Your task to perform on an android device: What's the weather today? Image 0: 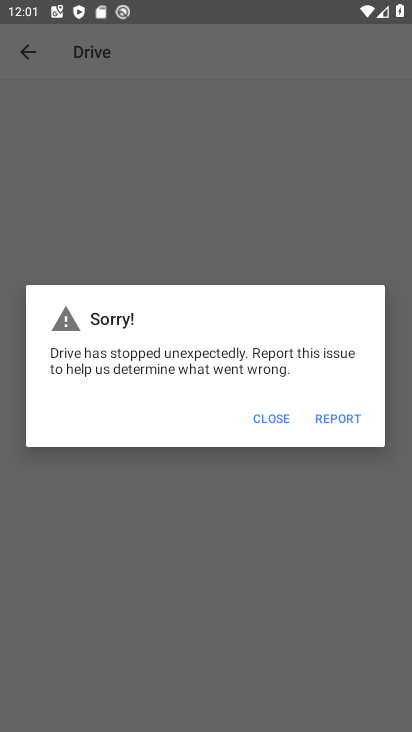
Step 0: press home button
Your task to perform on an android device: What's the weather today? Image 1: 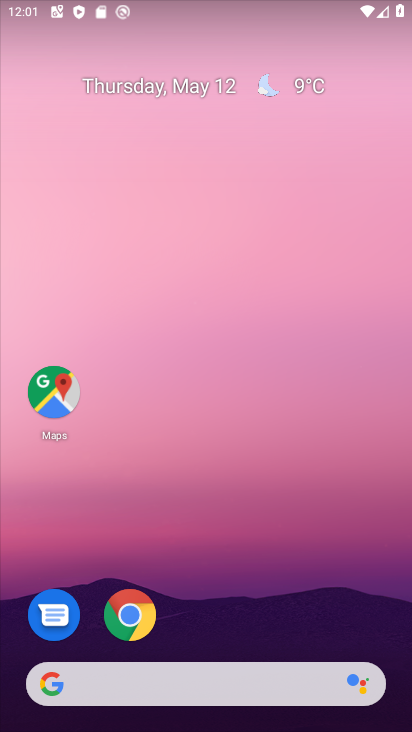
Step 1: click (301, 90)
Your task to perform on an android device: What's the weather today? Image 2: 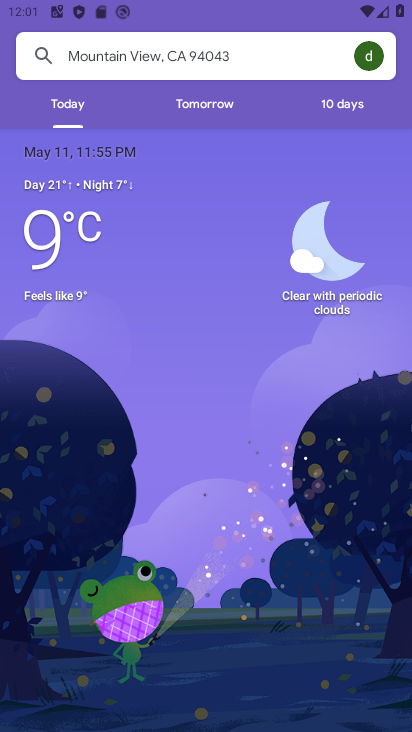
Step 2: task complete